Your task to perform on an android device: Go to ESPN.com Image 0: 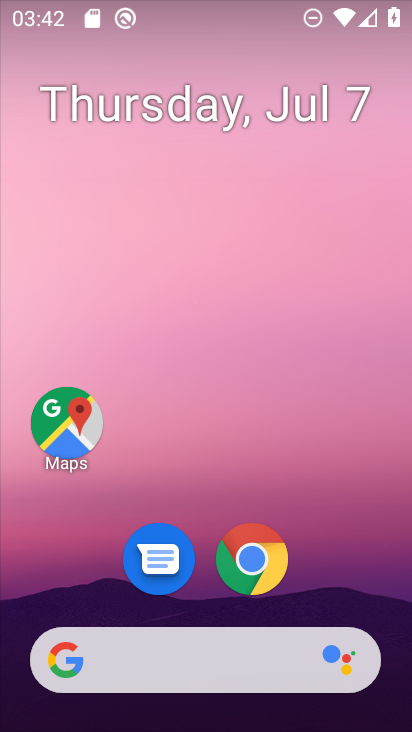
Step 0: drag from (371, 584) to (374, 234)
Your task to perform on an android device: Go to ESPN.com Image 1: 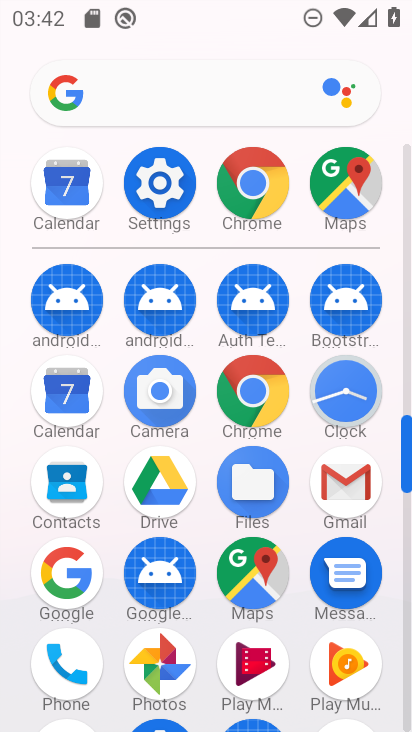
Step 1: click (280, 395)
Your task to perform on an android device: Go to ESPN.com Image 2: 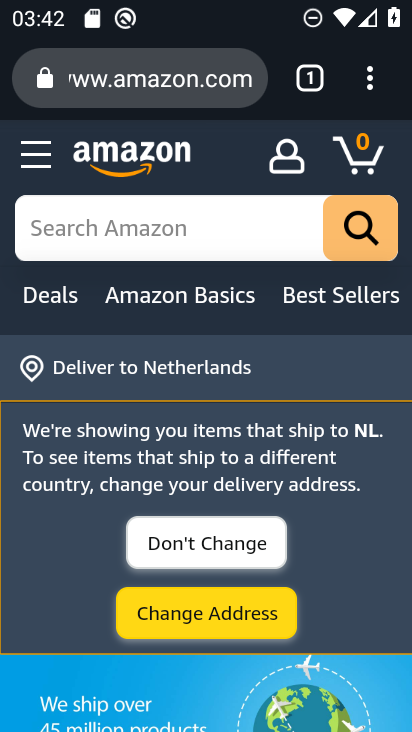
Step 2: click (211, 87)
Your task to perform on an android device: Go to ESPN.com Image 3: 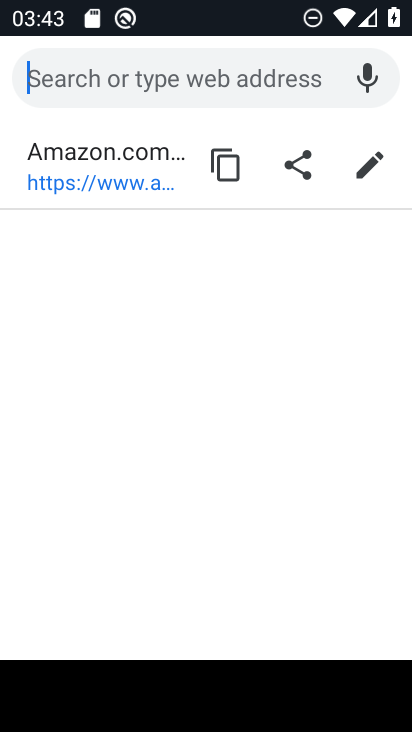
Step 3: type "espn.com"
Your task to perform on an android device: Go to ESPN.com Image 4: 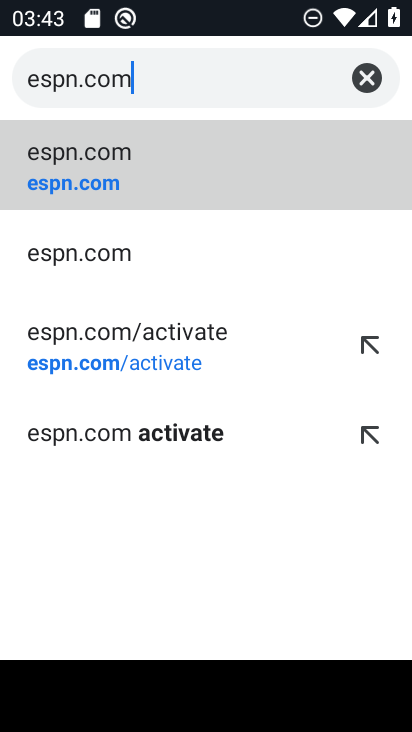
Step 4: click (320, 187)
Your task to perform on an android device: Go to ESPN.com Image 5: 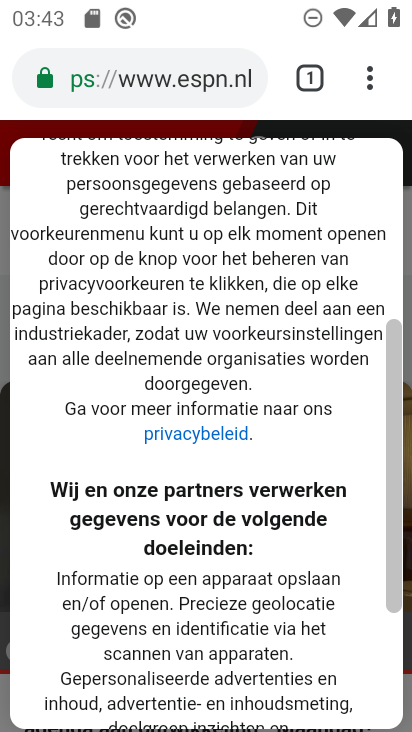
Step 5: task complete